Your task to perform on an android device: Open sound settings Image 0: 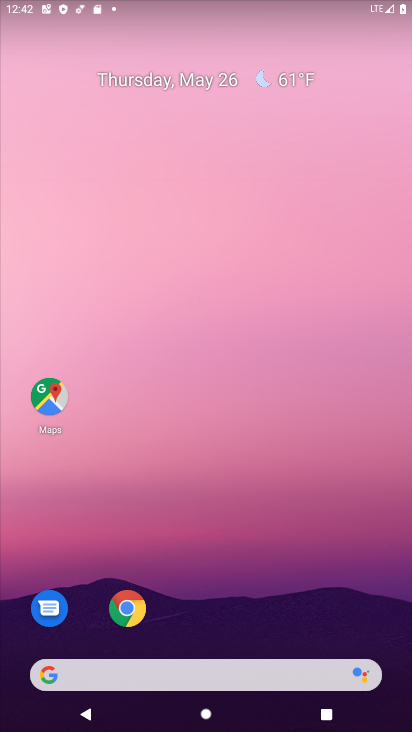
Step 0: click (125, 609)
Your task to perform on an android device: Open sound settings Image 1: 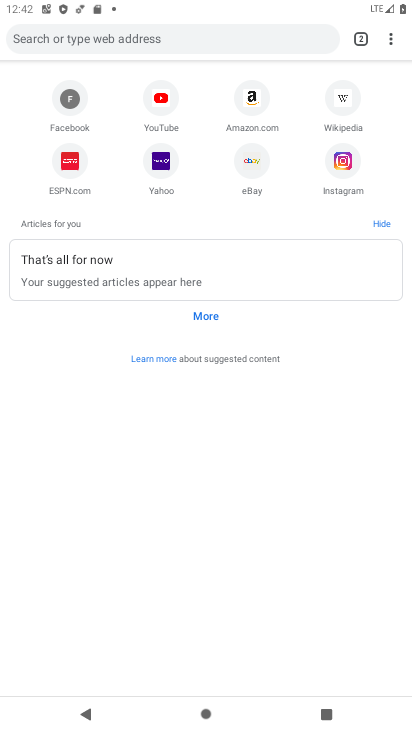
Step 1: click (82, 713)
Your task to perform on an android device: Open sound settings Image 2: 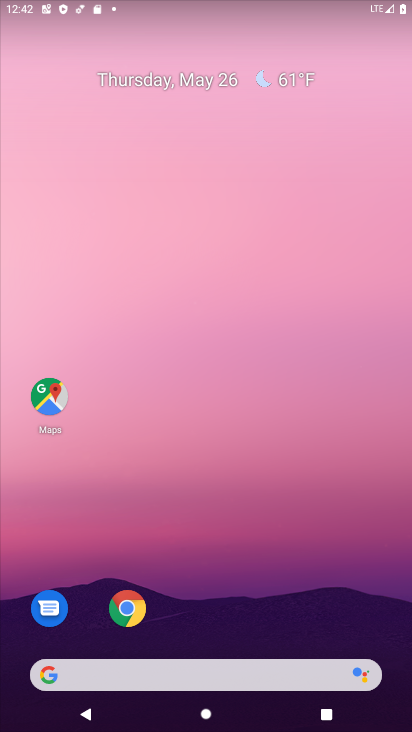
Step 2: drag from (387, 616) to (372, 127)
Your task to perform on an android device: Open sound settings Image 3: 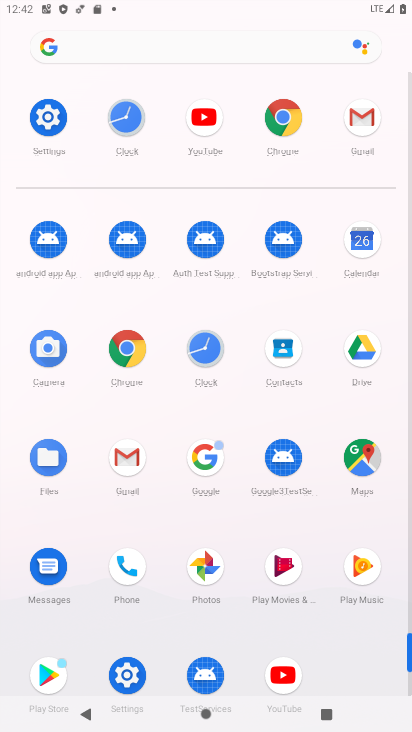
Step 3: click (409, 685)
Your task to perform on an android device: Open sound settings Image 4: 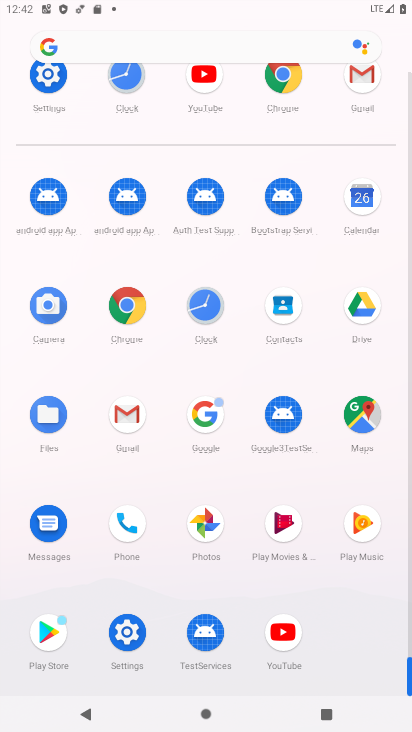
Step 4: click (126, 630)
Your task to perform on an android device: Open sound settings Image 5: 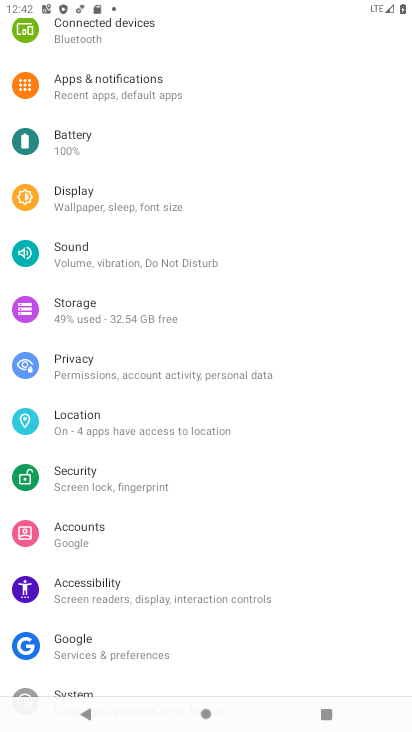
Step 5: click (74, 247)
Your task to perform on an android device: Open sound settings Image 6: 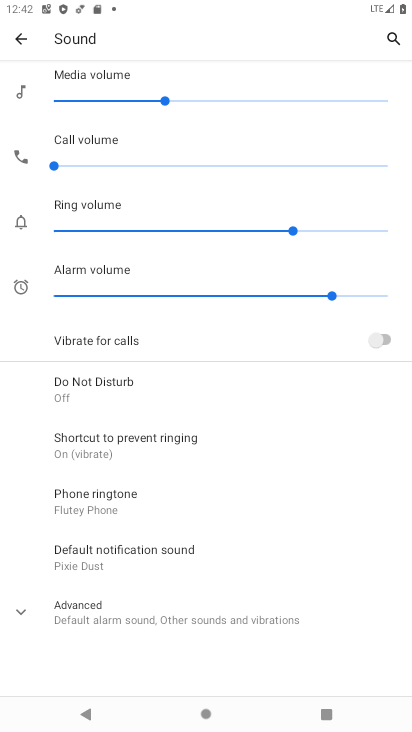
Step 6: drag from (270, 573) to (261, 240)
Your task to perform on an android device: Open sound settings Image 7: 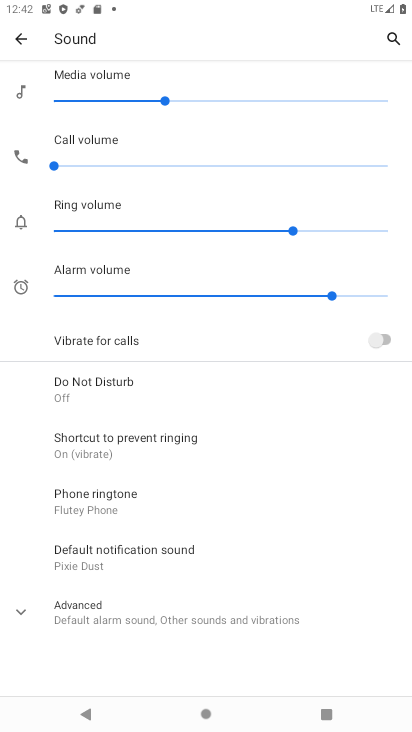
Step 7: click (16, 604)
Your task to perform on an android device: Open sound settings Image 8: 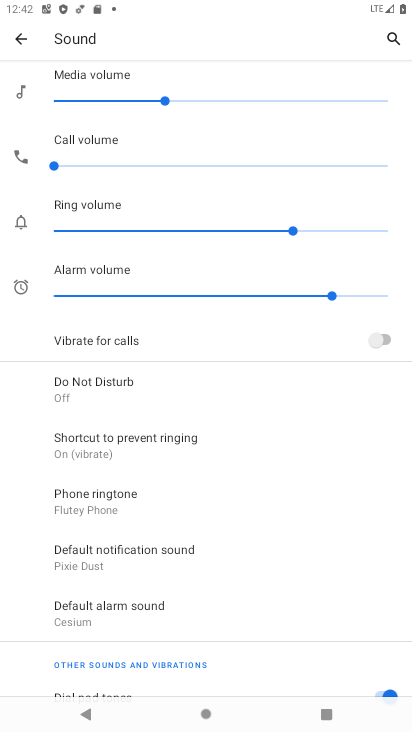
Step 8: task complete